Your task to perform on an android device: Add macbook air to the cart on costco, then select checkout. Image 0: 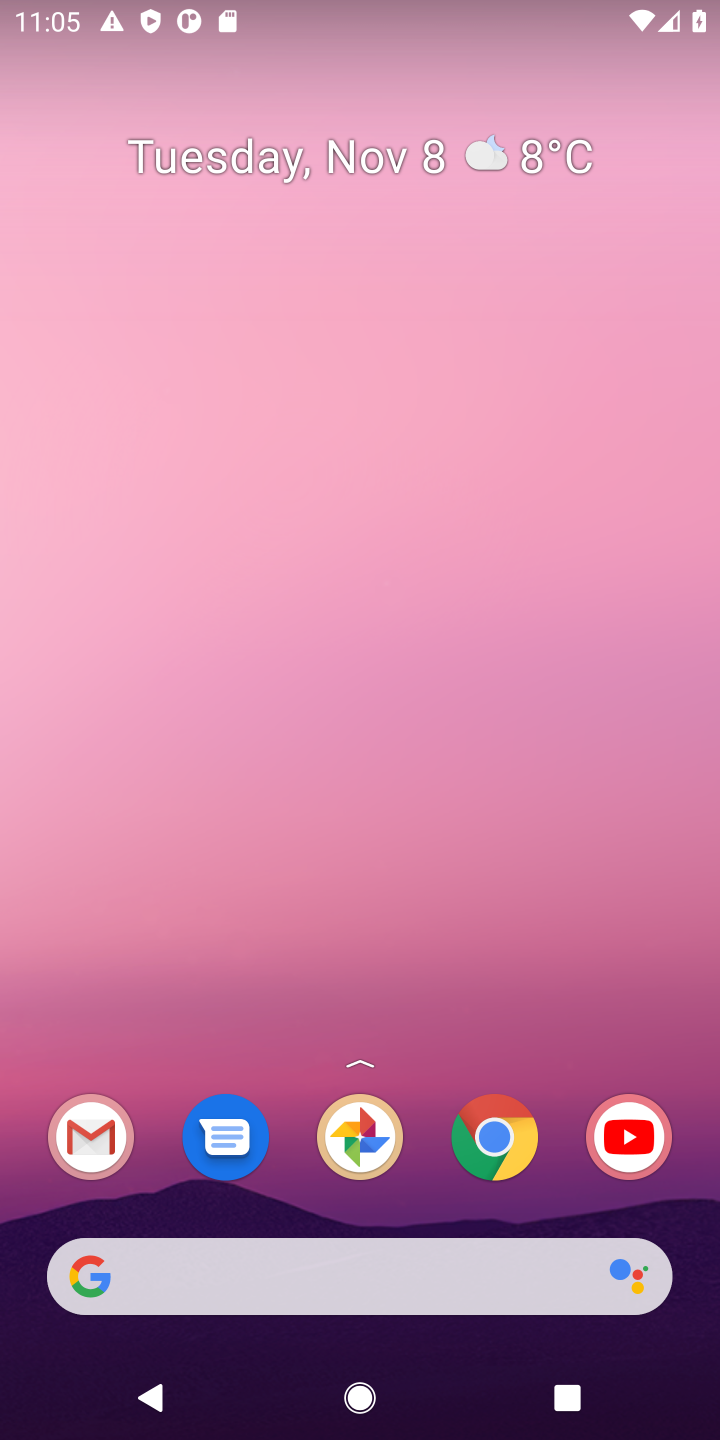
Step 0: click (491, 1151)
Your task to perform on an android device: Add macbook air to the cart on costco, then select checkout. Image 1: 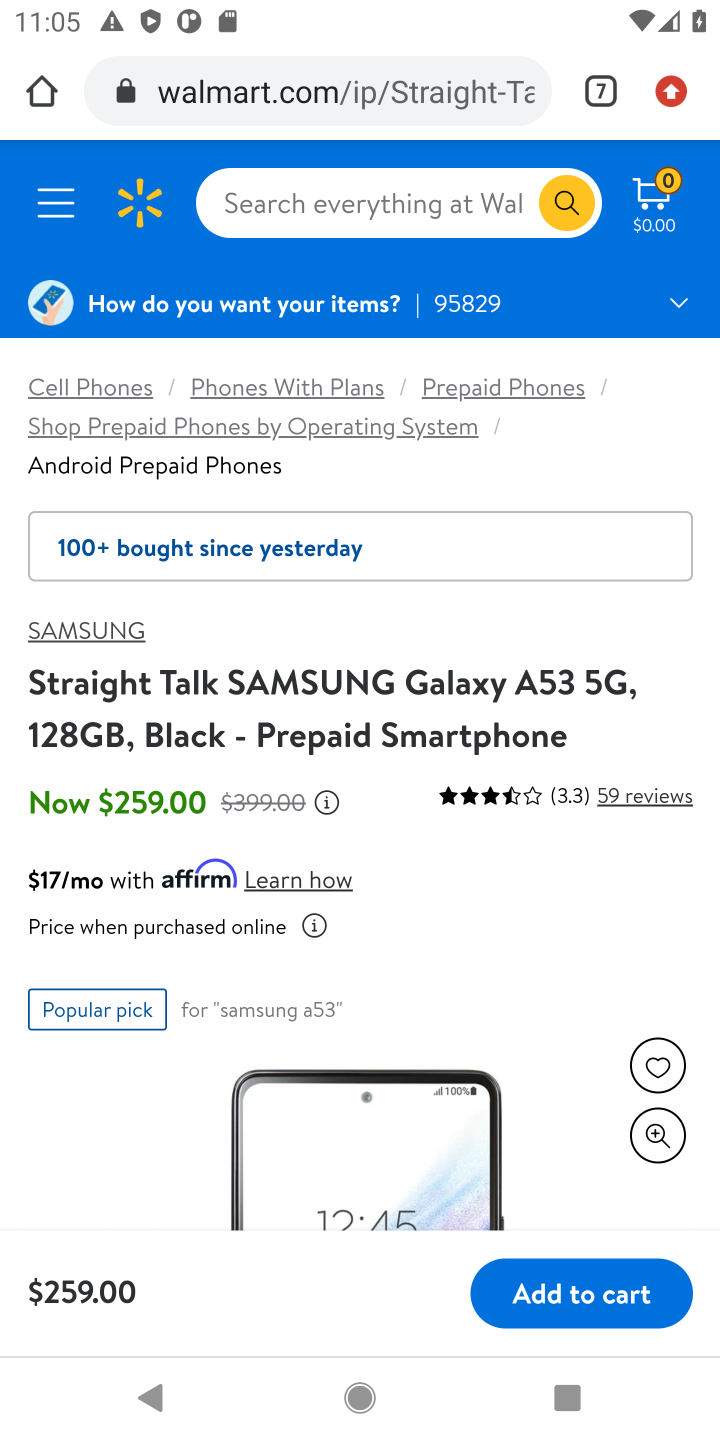
Step 1: click (602, 92)
Your task to perform on an android device: Add macbook air to the cart on costco, then select checkout. Image 2: 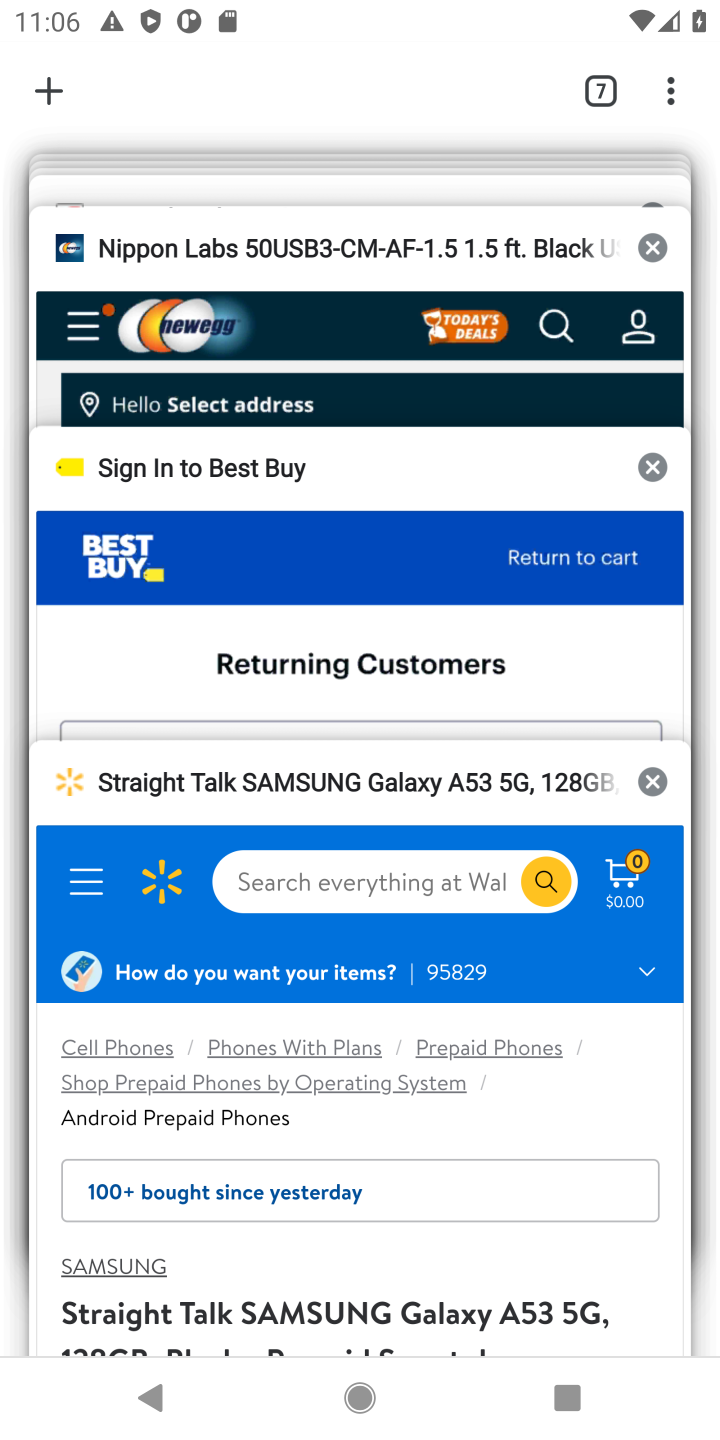
Step 2: drag from (341, 192) to (353, 432)
Your task to perform on an android device: Add macbook air to the cart on costco, then select checkout. Image 3: 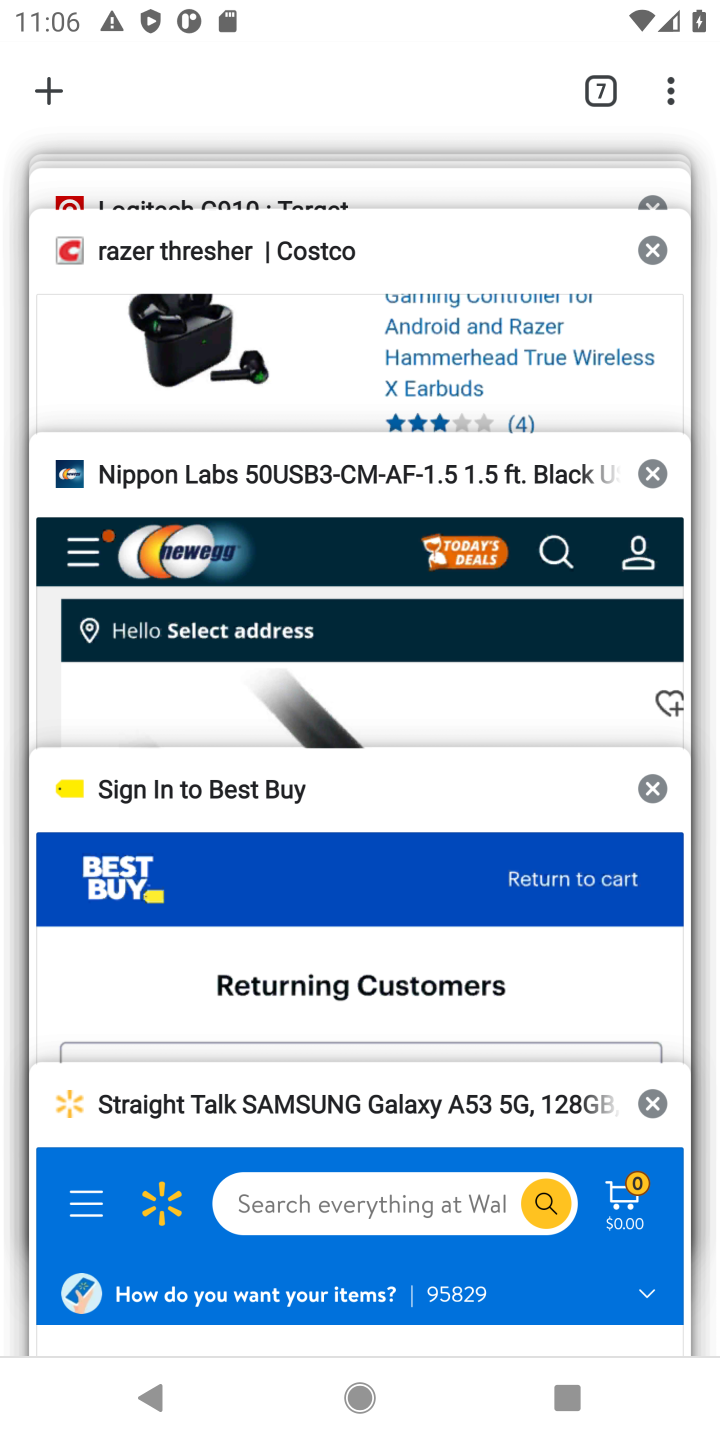
Step 3: click (360, 283)
Your task to perform on an android device: Add macbook air to the cart on costco, then select checkout. Image 4: 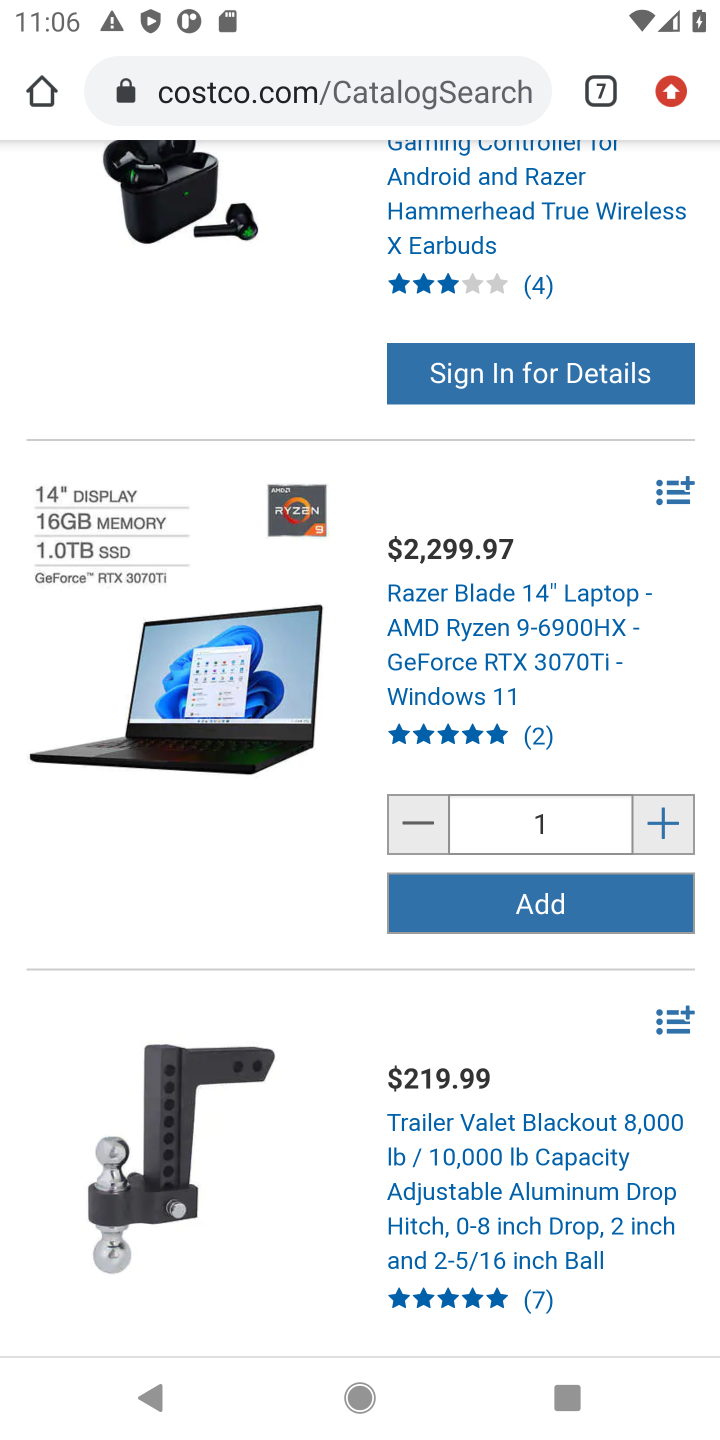
Step 4: drag from (261, 322) to (192, 1042)
Your task to perform on an android device: Add macbook air to the cart on costco, then select checkout. Image 5: 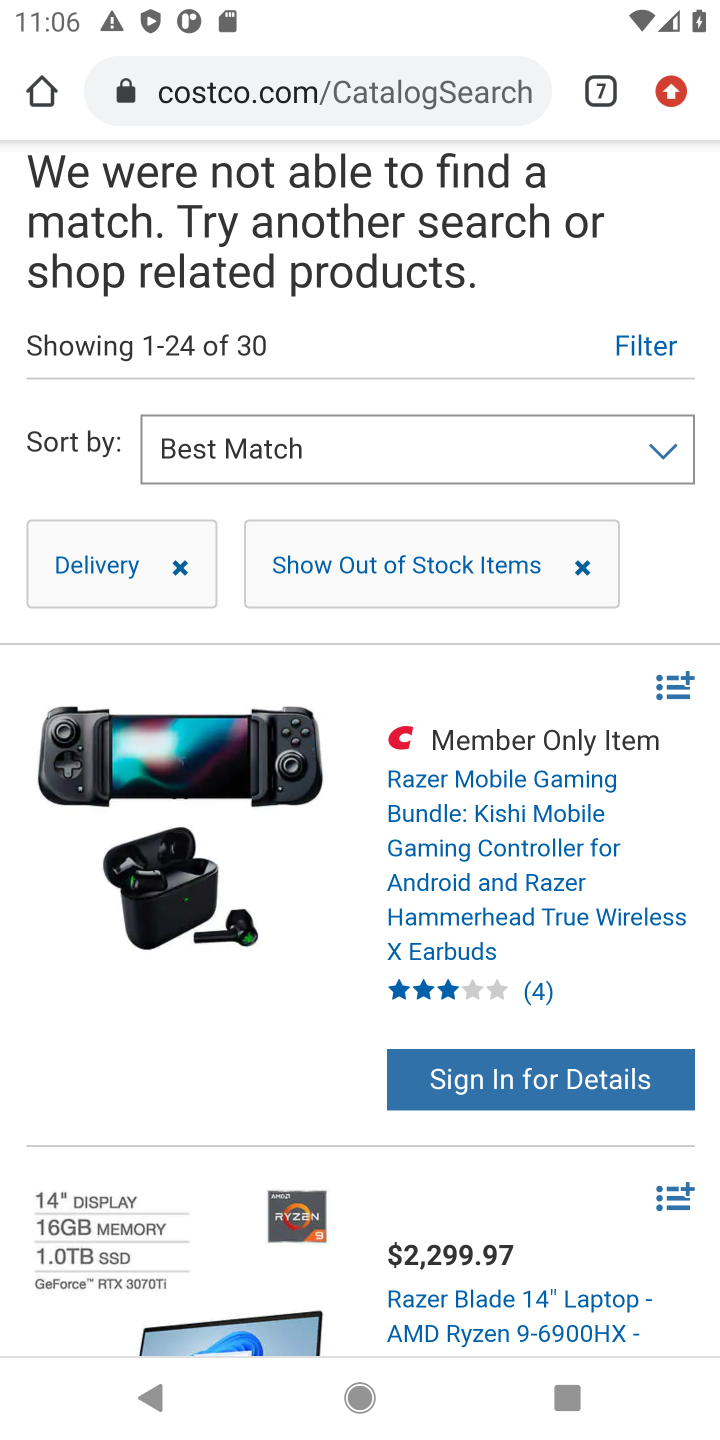
Step 5: drag from (375, 275) to (298, 925)
Your task to perform on an android device: Add macbook air to the cart on costco, then select checkout. Image 6: 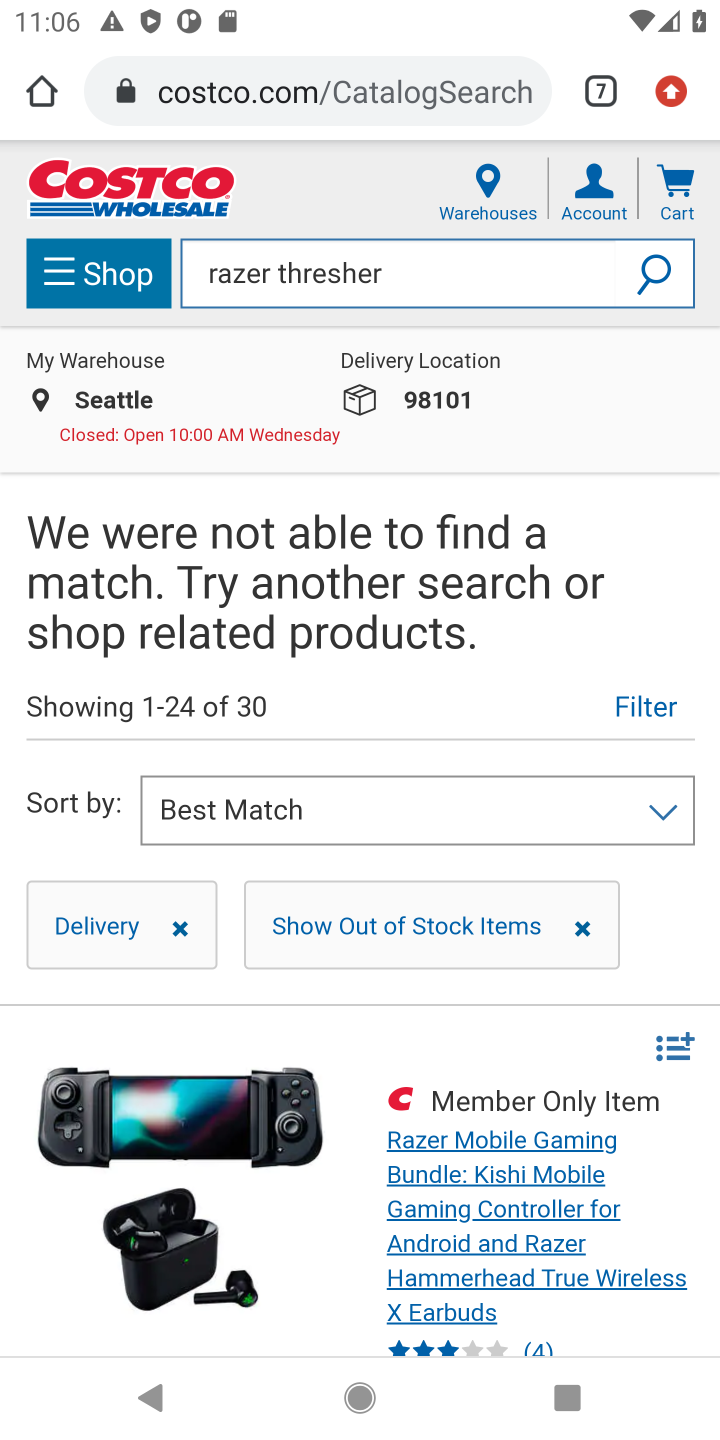
Step 6: click (414, 276)
Your task to perform on an android device: Add macbook air to the cart on costco, then select checkout. Image 7: 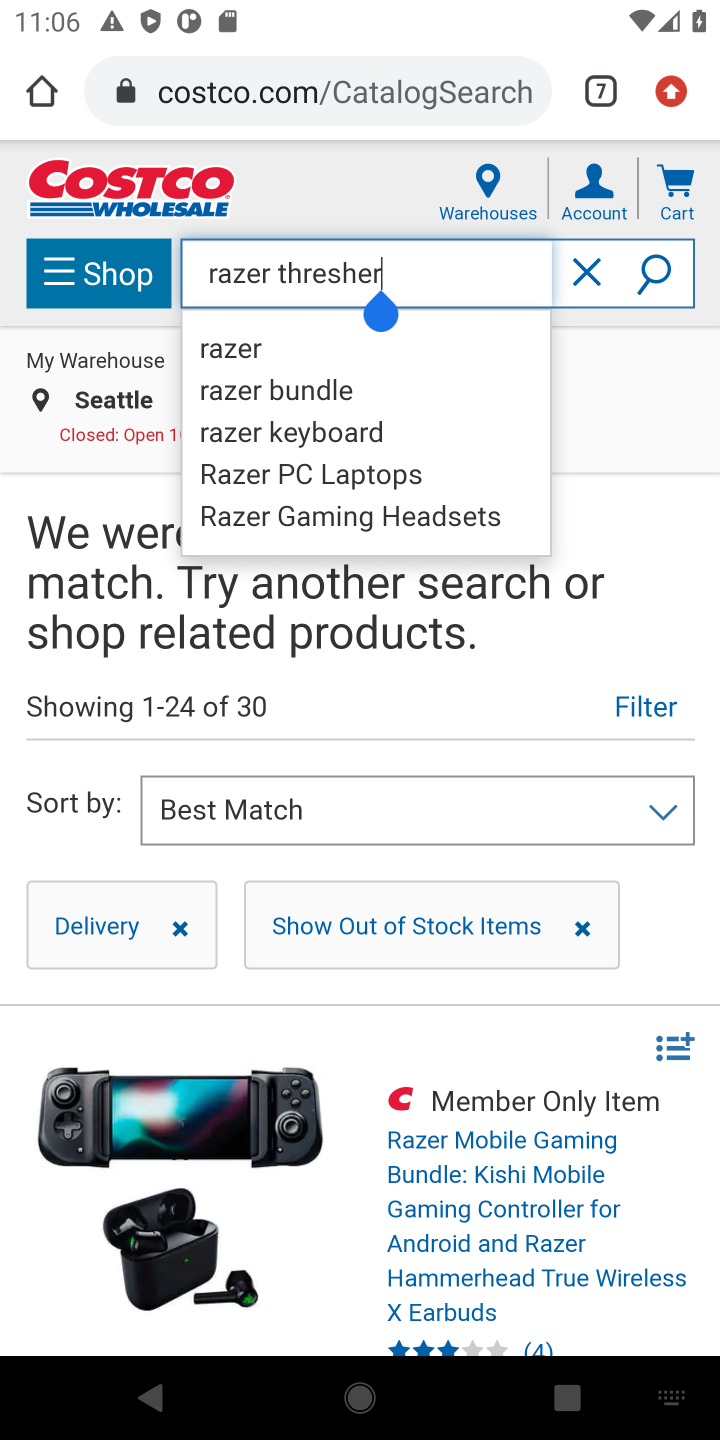
Step 7: click (583, 265)
Your task to perform on an android device: Add macbook air to the cart on costco, then select checkout. Image 8: 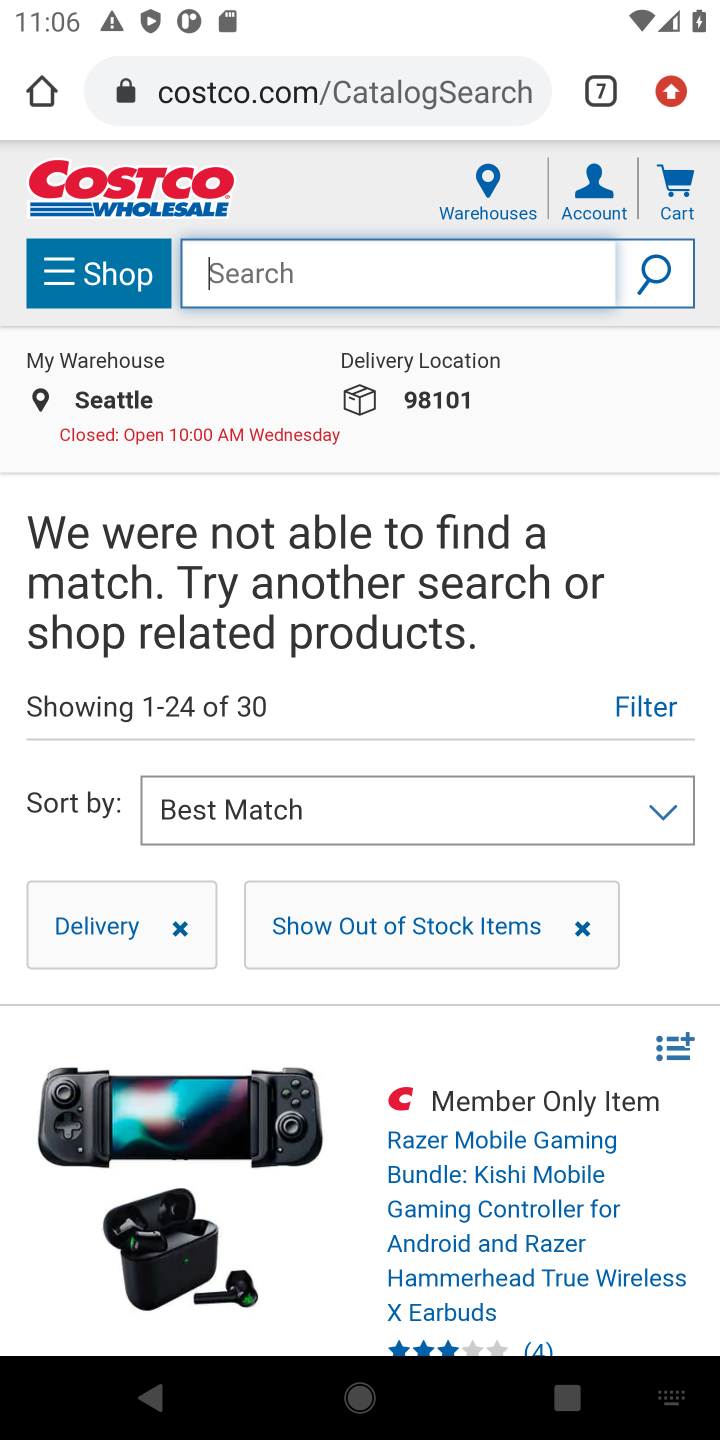
Step 8: type "macbook air"
Your task to perform on an android device: Add macbook air to the cart on costco, then select checkout. Image 9: 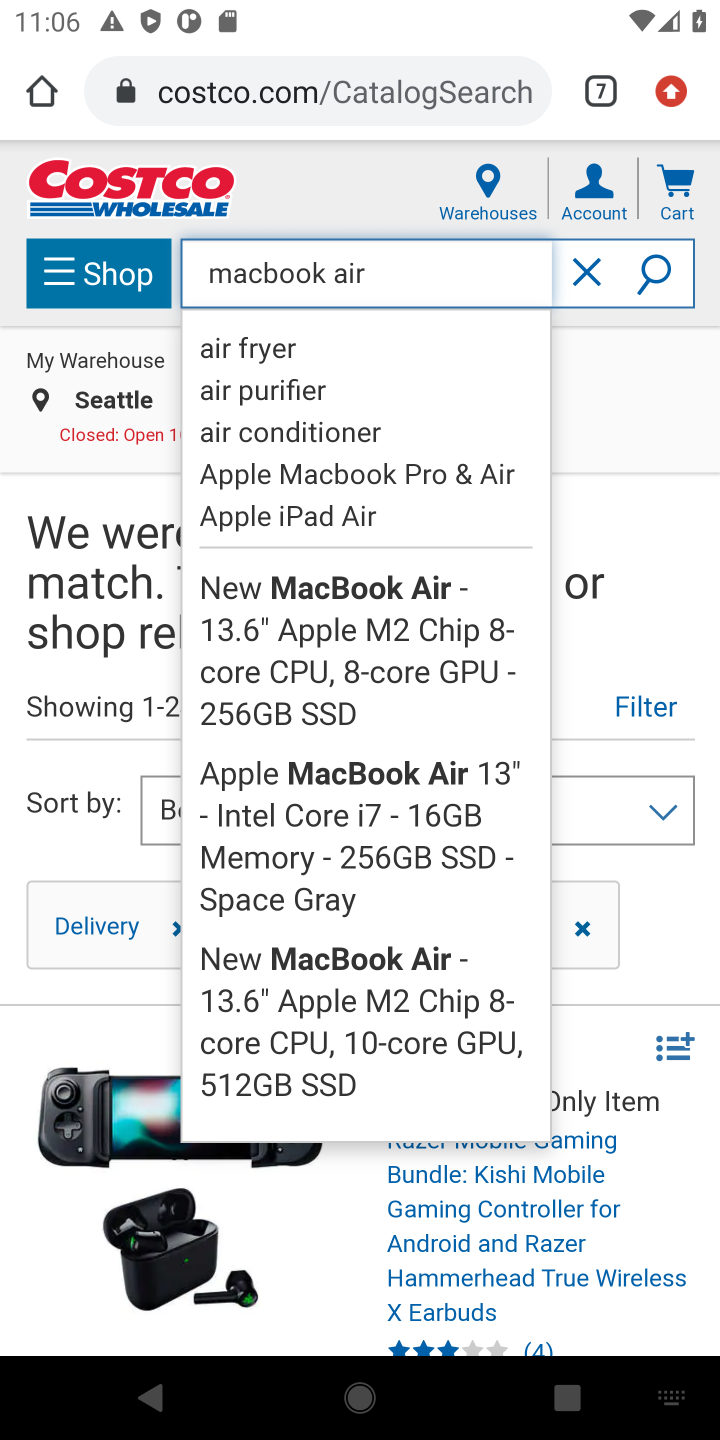
Step 9: click (321, 632)
Your task to perform on an android device: Add macbook air to the cart on costco, then select checkout. Image 10: 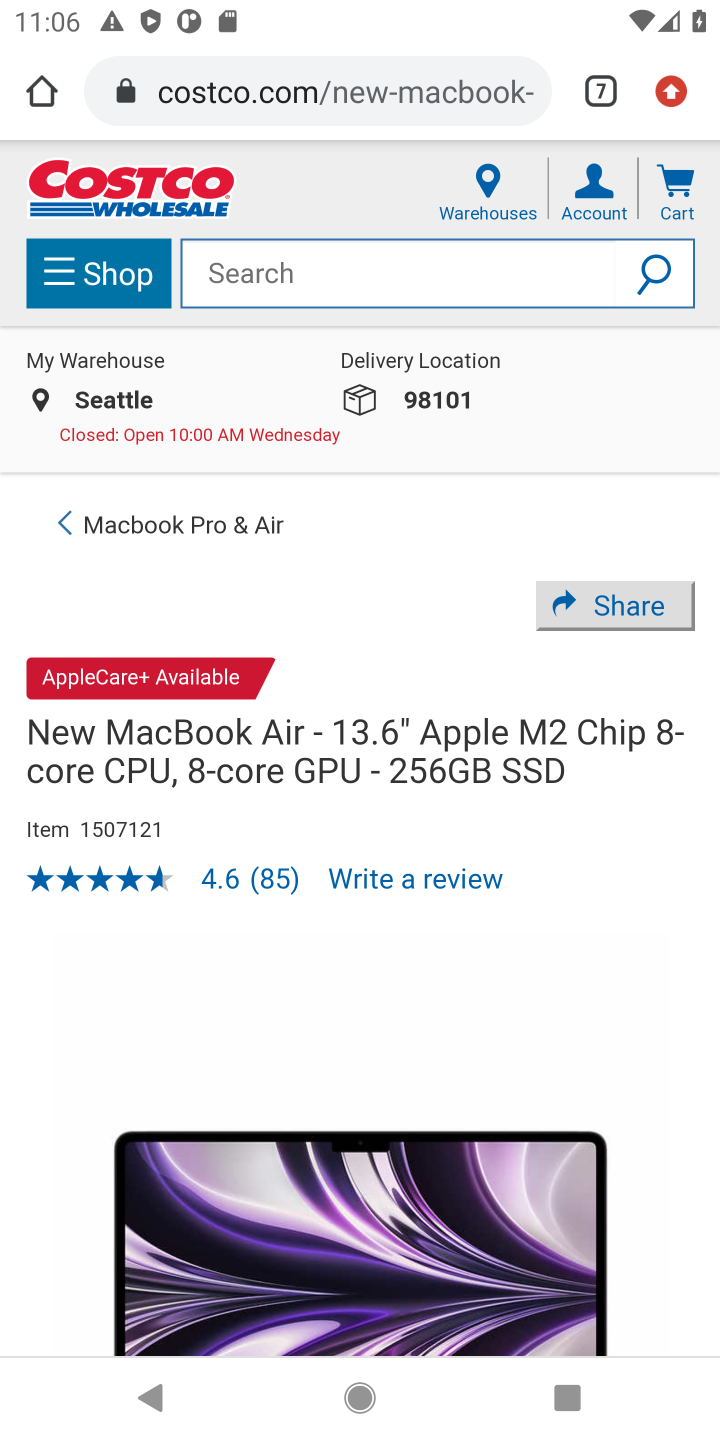
Step 10: drag from (616, 1310) to (702, 281)
Your task to perform on an android device: Add macbook air to the cart on costco, then select checkout. Image 11: 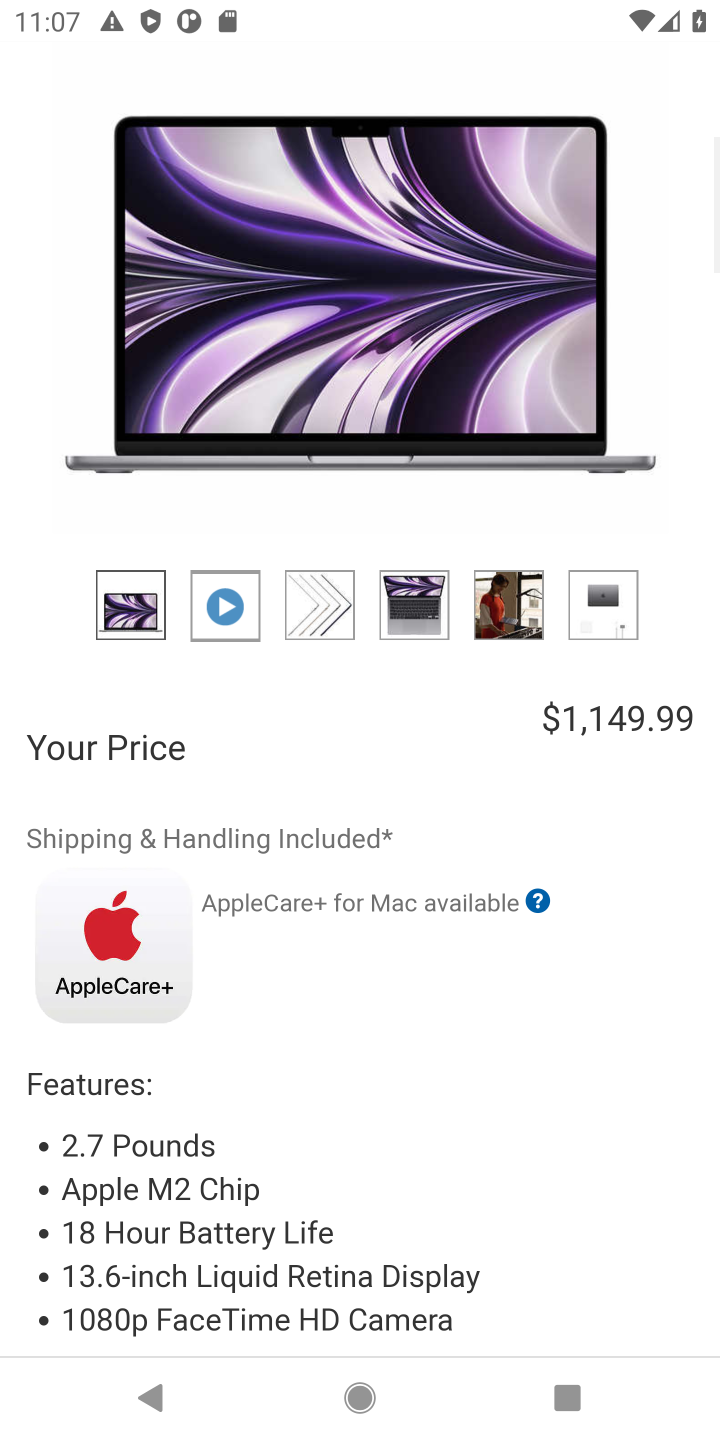
Step 11: drag from (346, 1143) to (513, 593)
Your task to perform on an android device: Add macbook air to the cart on costco, then select checkout. Image 12: 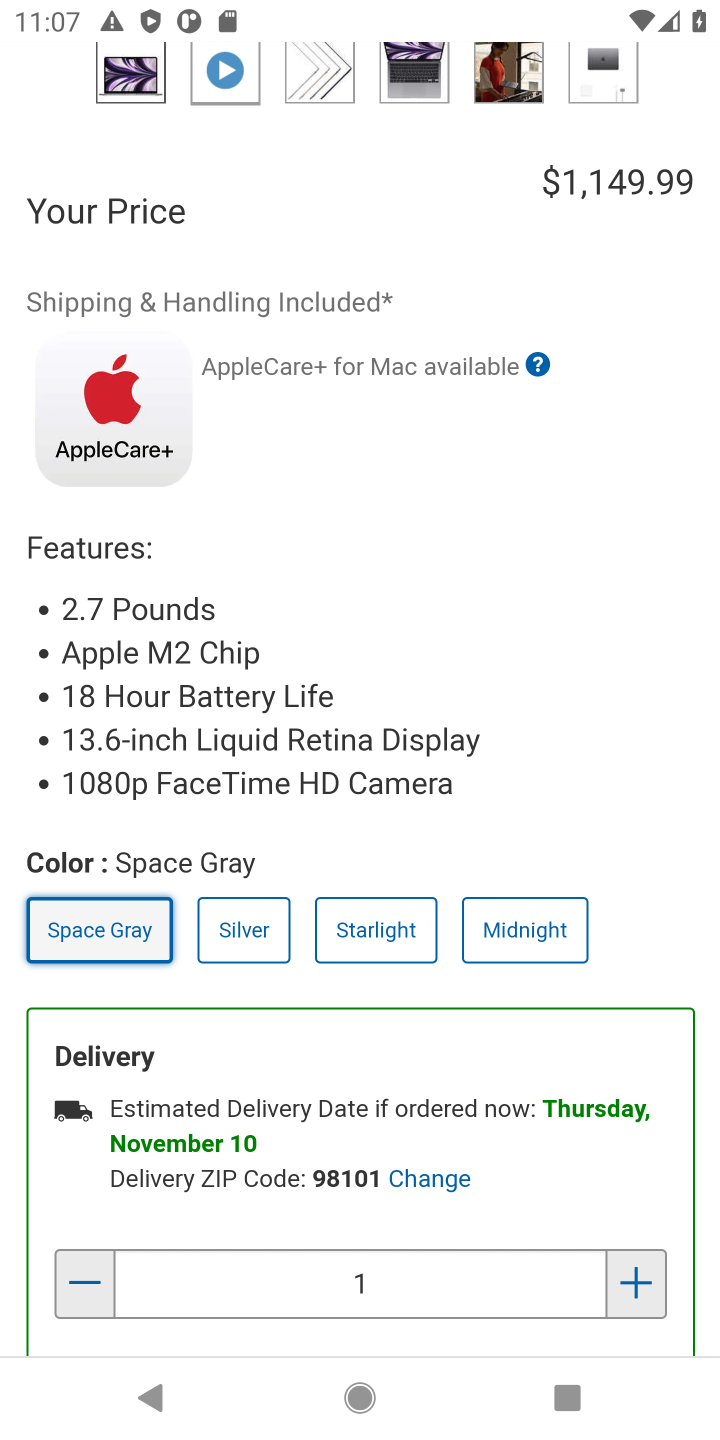
Step 12: drag from (384, 759) to (448, 398)
Your task to perform on an android device: Add macbook air to the cart on costco, then select checkout. Image 13: 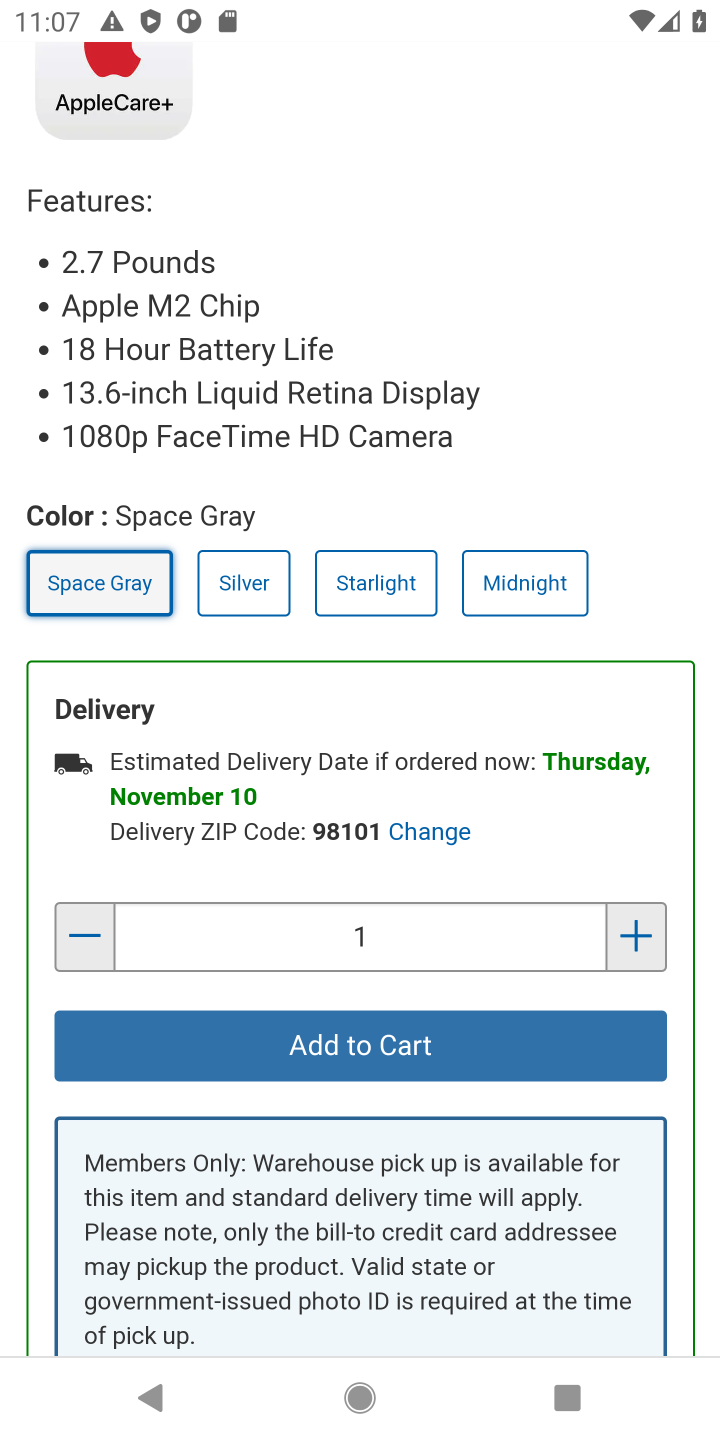
Step 13: click (331, 1040)
Your task to perform on an android device: Add macbook air to the cart on costco, then select checkout. Image 14: 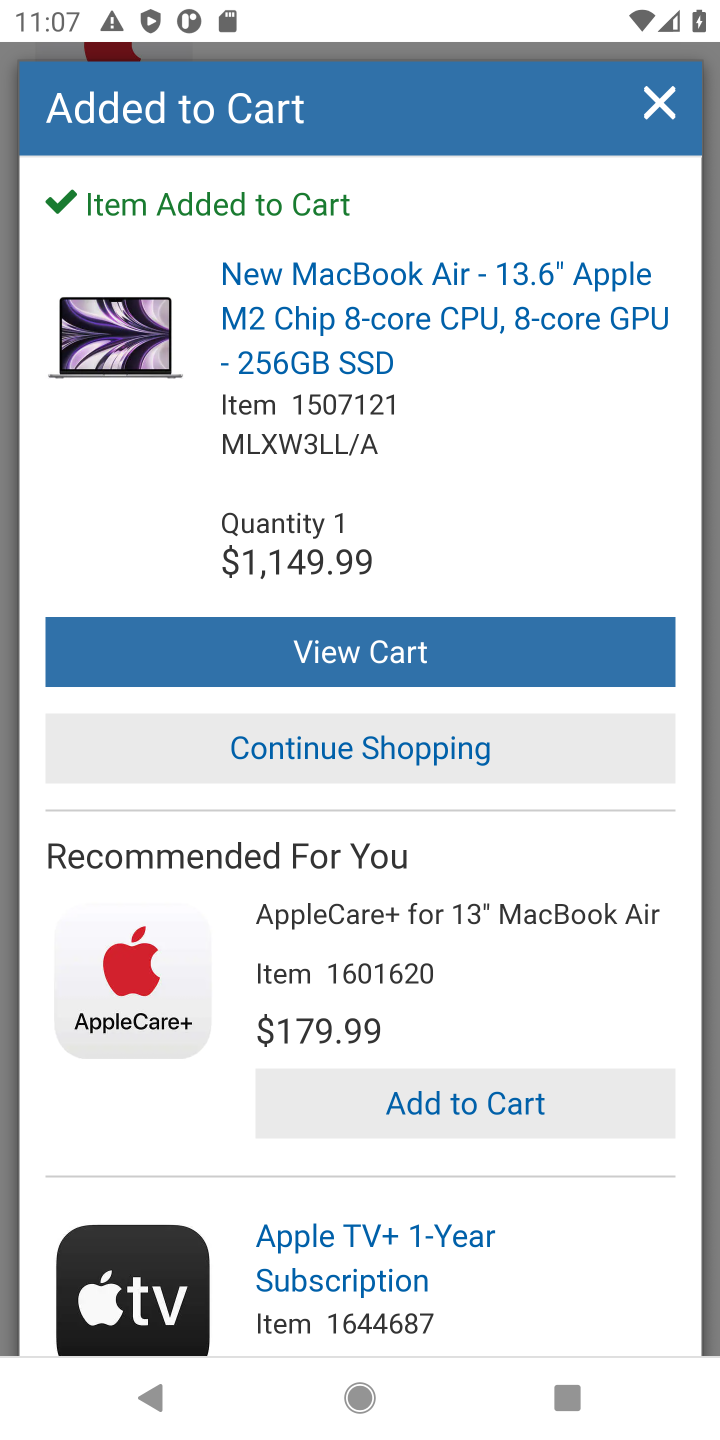
Step 14: click (362, 643)
Your task to perform on an android device: Add macbook air to the cart on costco, then select checkout. Image 15: 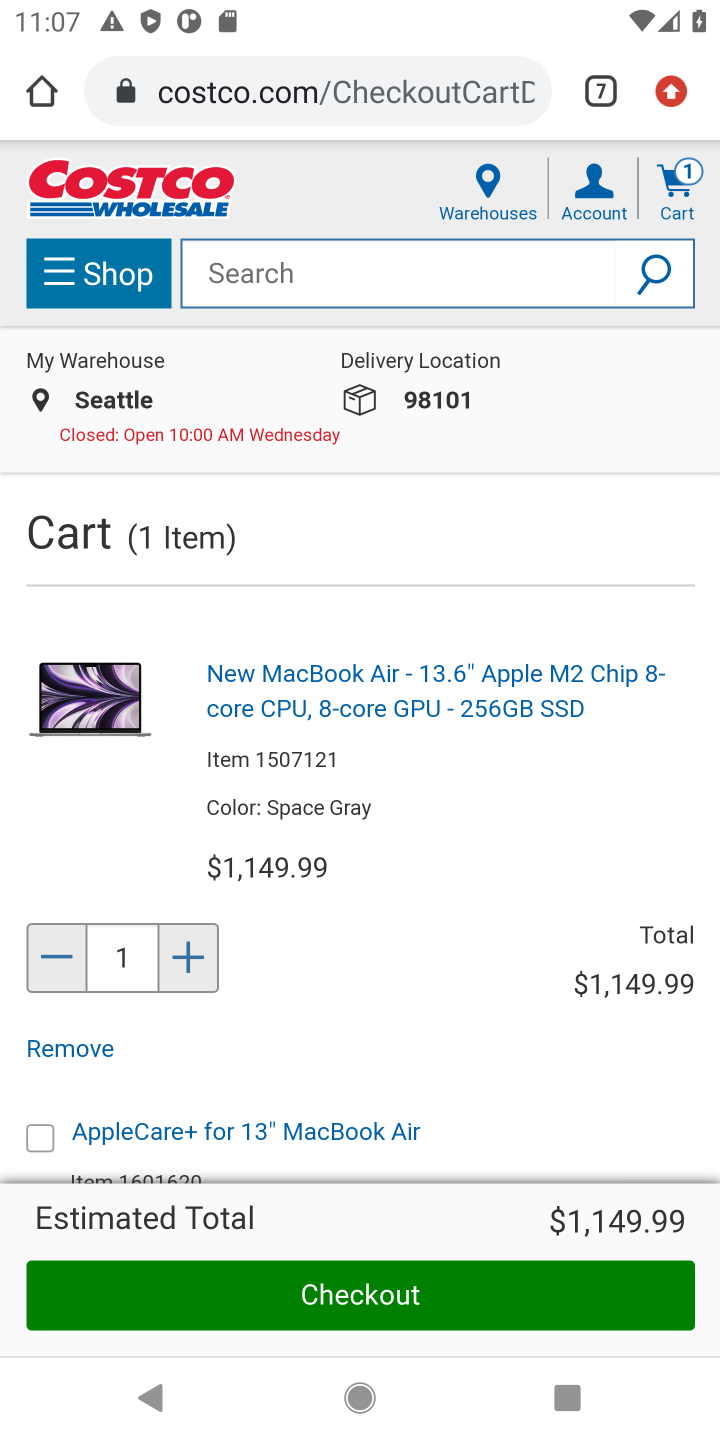
Step 15: click (378, 1295)
Your task to perform on an android device: Add macbook air to the cart on costco, then select checkout. Image 16: 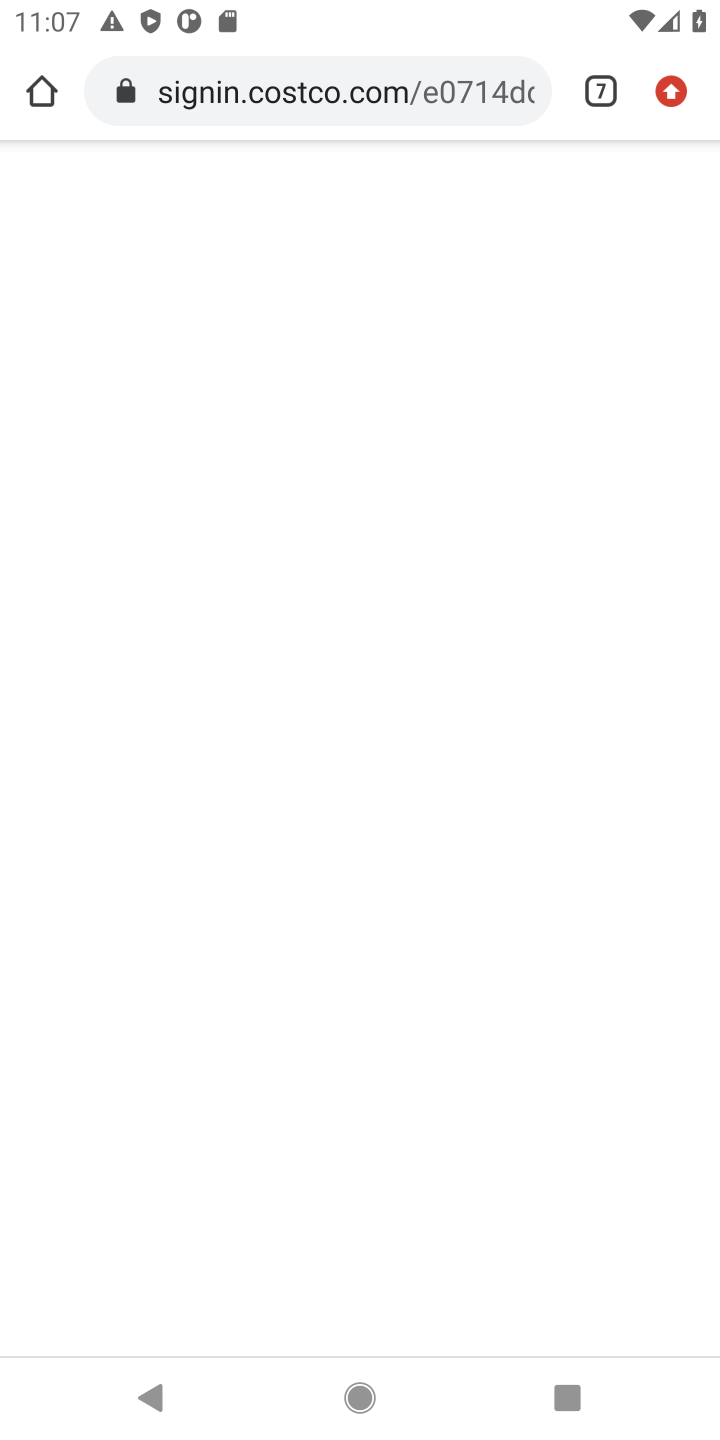
Step 16: task complete